Your task to perform on an android device: Do I have any events today? Image 0: 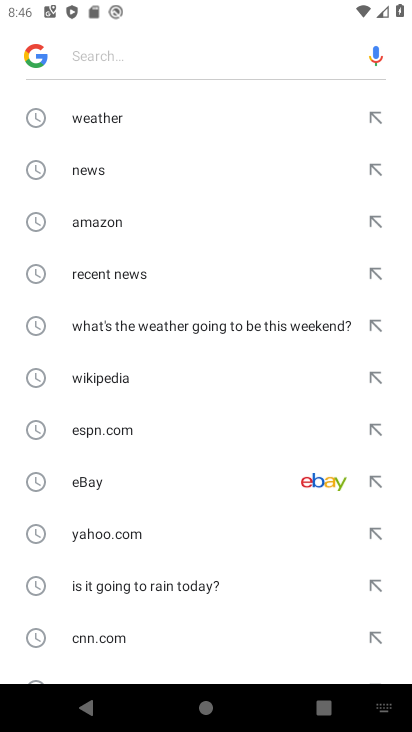
Step 0: press home button
Your task to perform on an android device: Do I have any events today? Image 1: 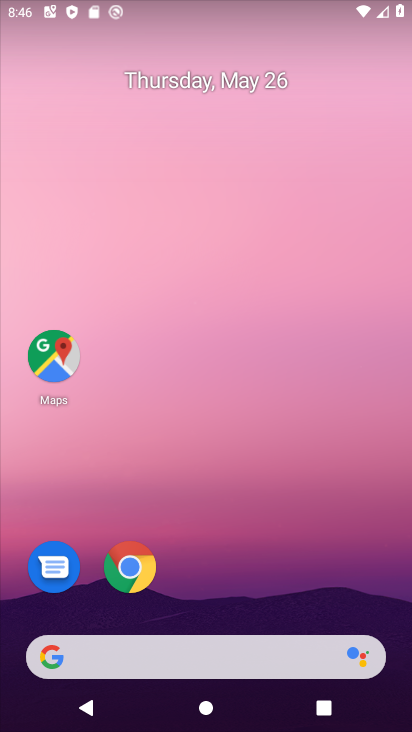
Step 1: click (62, 657)
Your task to perform on an android device: Do I have any events today? Image 2: 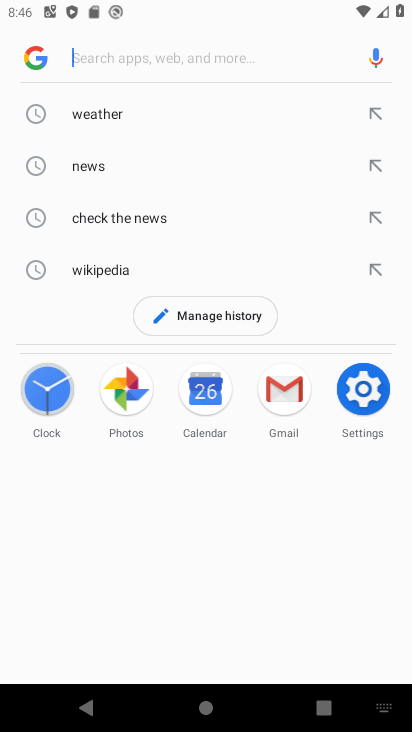
Step 2: click (202, 393)
Your task to perform on an android device: Do I have any events today? Image 3: 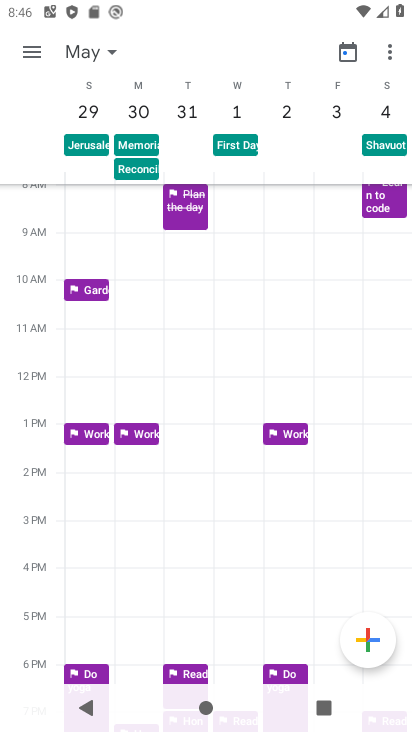
Step 3: click (77, 48)
Your task to perform on an android device: Do I have any events today? Image 4: 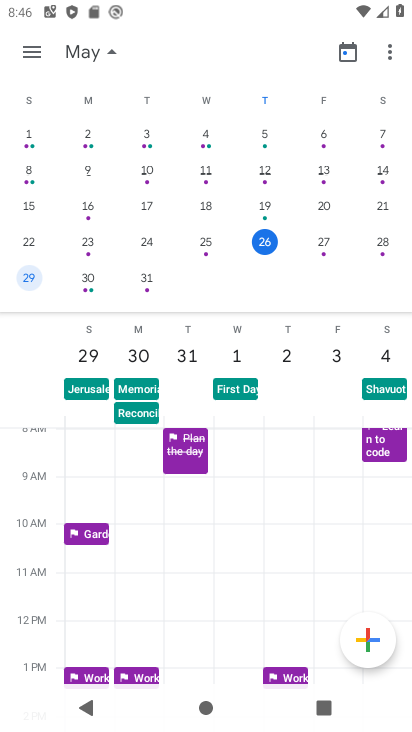
Step 4: click (262, 251)
Your task to perform on an android device: Do I have any events today? Image 5: 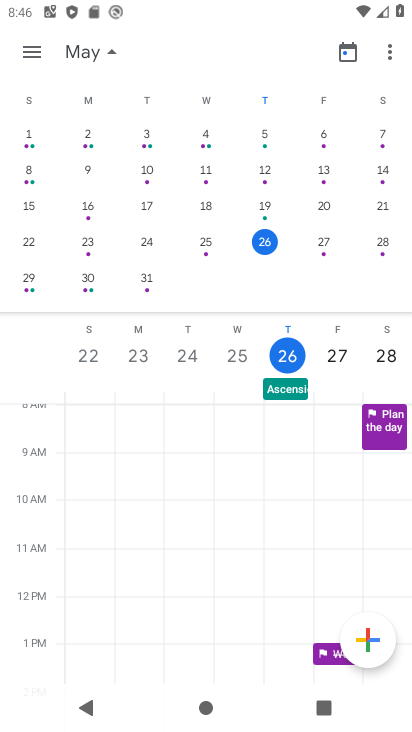
Step 5: click (20, 51)
Your task to perform on an android device: Do I have any events today? Image 6: 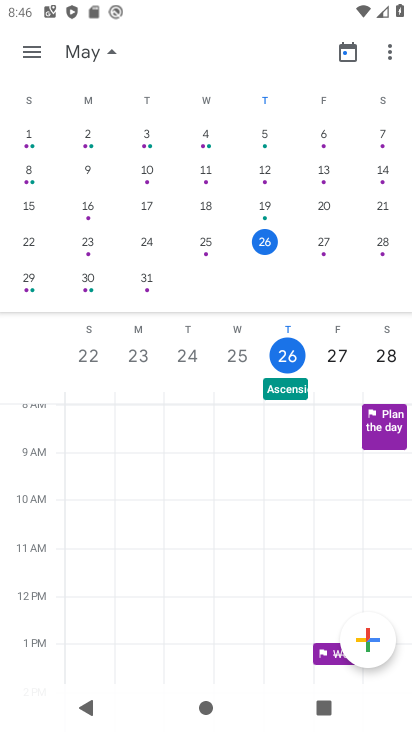
Step 6: click (31, 55)
Your task to perform on an android device: Do I have any events today? Image 7: 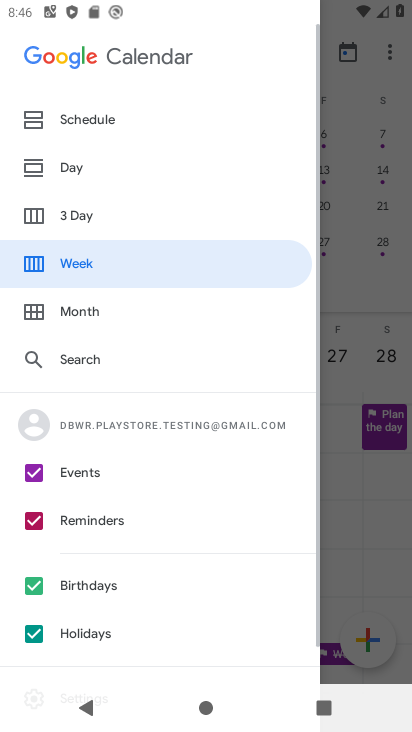
Step 7: click (74, 169)
Your task to perform on an android device: Do I have any events today? Image 8: 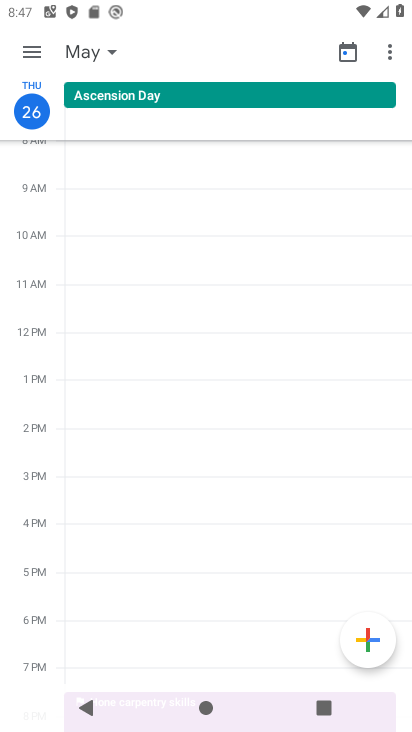
Step 8: click (43, 48)
Your task to perform on an android device: Do I have any events today? Image 9: 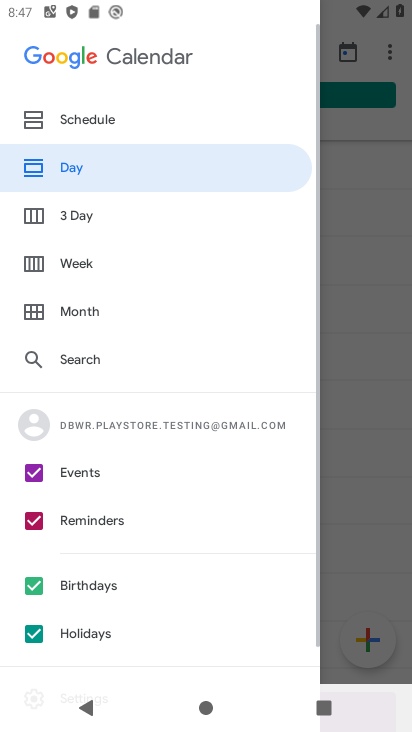
Step 9: click (93, 117)
Your task to perform on an android device: Do I have any events today? Image 10: 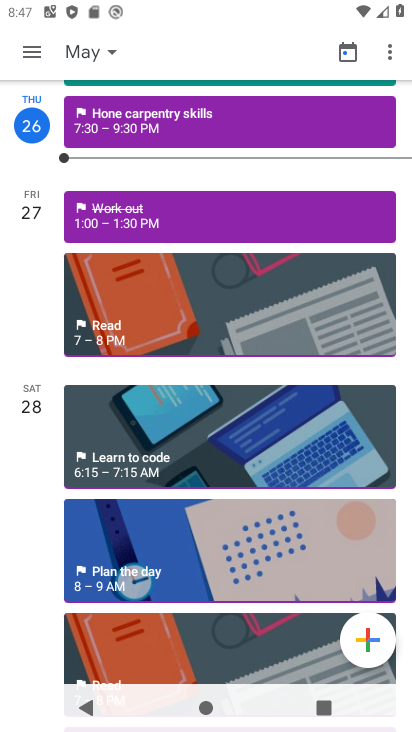
Step 10: click (244, 132)
Your task to perform on an android device: Do I have any events today? Image 11: 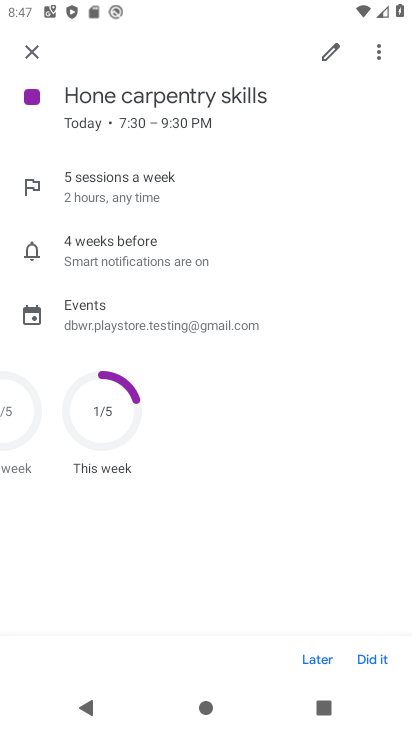
Step 11: task complete